Your task to perform on an android device: check data usage Image 0: 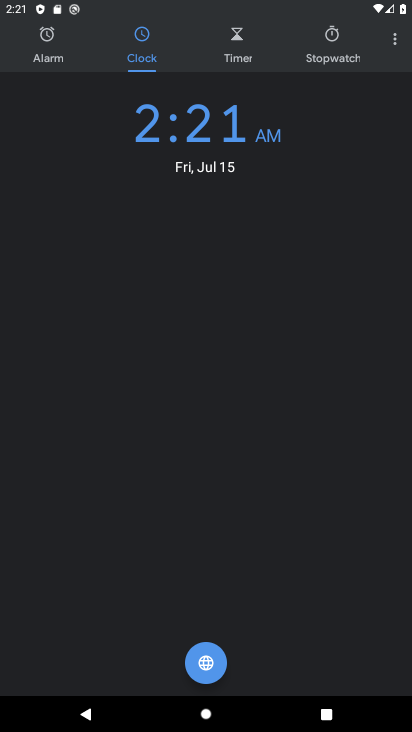
Step 0: press home button
Your task to perform on an android device: check data usage Image 1: 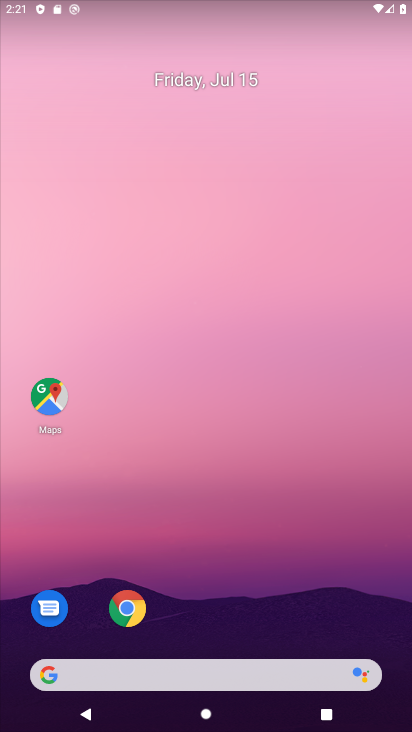
Step 1: drag from (265, 622) to (257, 137)
Your task to perform on an android device: check data usage Image 2: 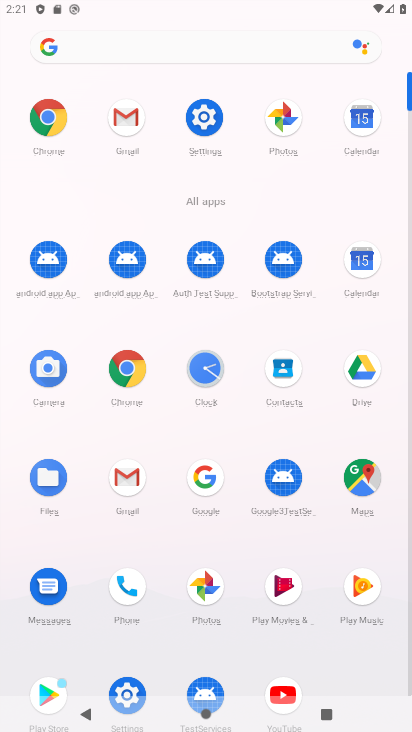
Step 2: click (207, 130)
Your task to perform on an android device: check data usage Image 3: 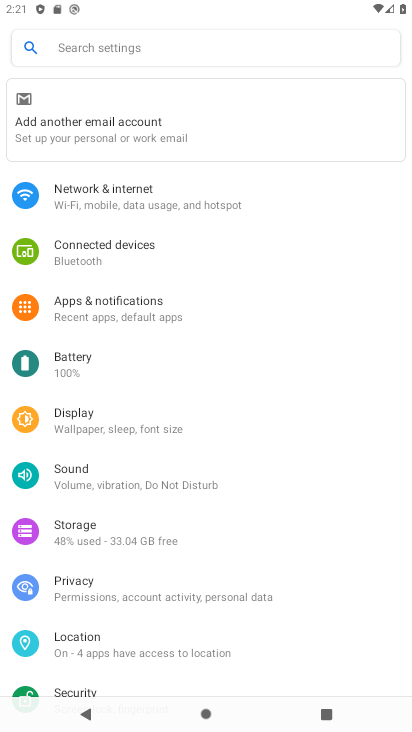
Step 3: click (226, 196)
Your task to perform on an android device: check data usage Image 4: 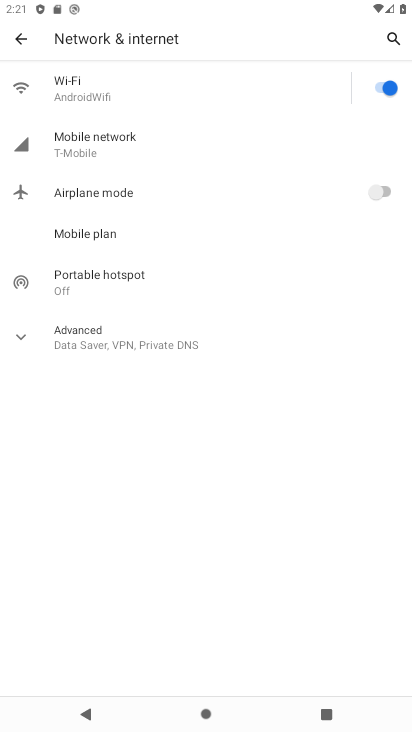
Step 4: click (188, 93)
Your task to perform on an android device: check data usage Image 5: 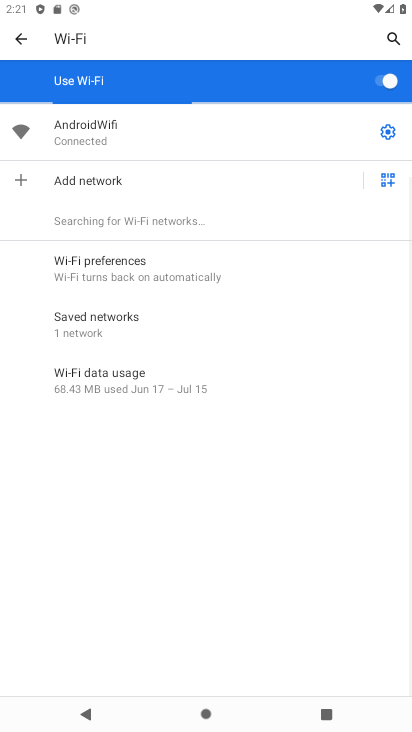
Step 5: click (201, 393)
Your task to perform on an android device: check data usage Image 6: 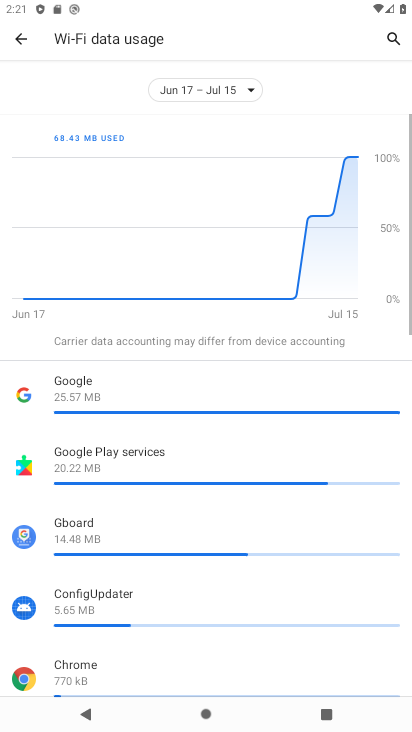
Step 6: task complete